Your task to perform on an android device: Open Chrome and go to the settings page Image 0: 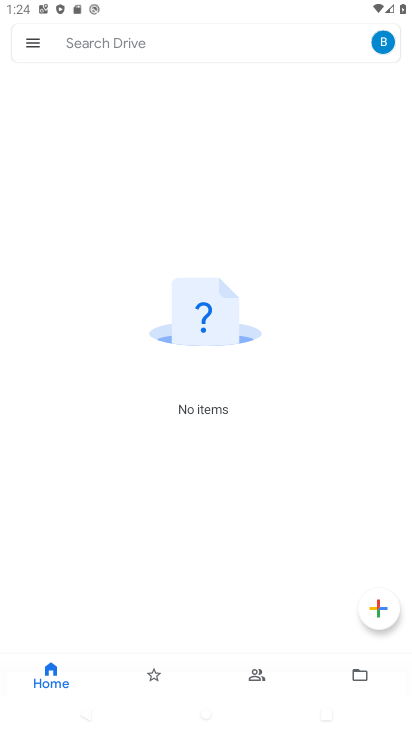
Step 0: press home button
Your task to perform on an android device: Open Chrome and go to the settings page Image 1: 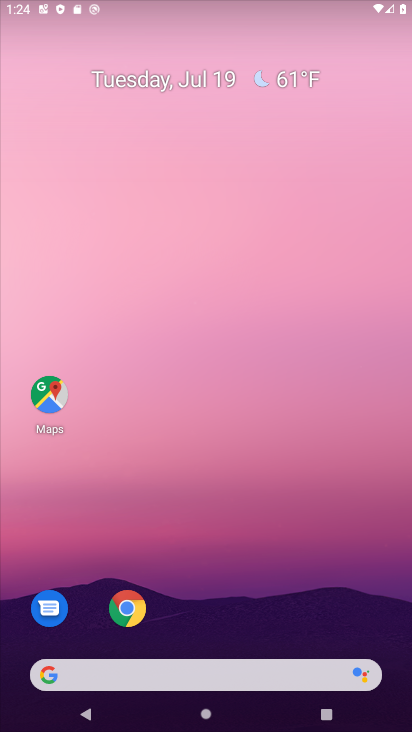
Step 1: drag from (280, 588) to (300, 0)
Your task to perform on an android device: Open Chrome and go to the settings page Image 2: 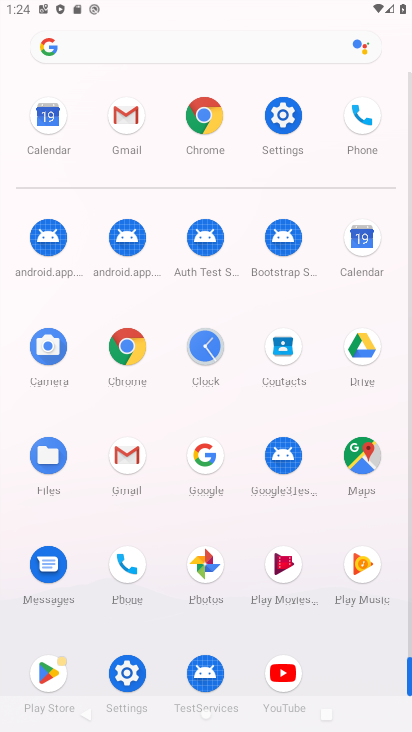
Step 2: click (205, 122)
Your task to perform on an android device: Open Chrome and go to the settings page Image 3: 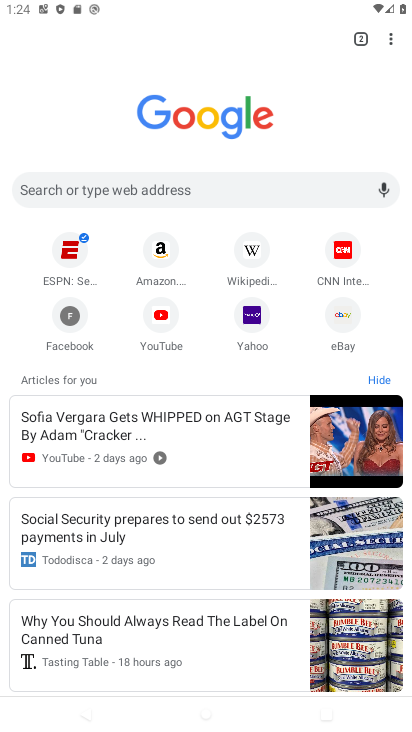
Step 3: task complete